Your task to perform on an android device: toggle show notifications on the lock screen Image 0: 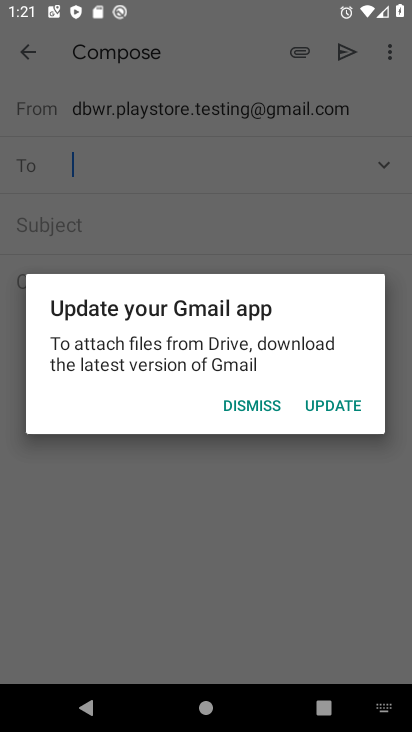
Step 0: press home button
Your task to perform on an android device: toggle show notifications on the lock screen Image 1: 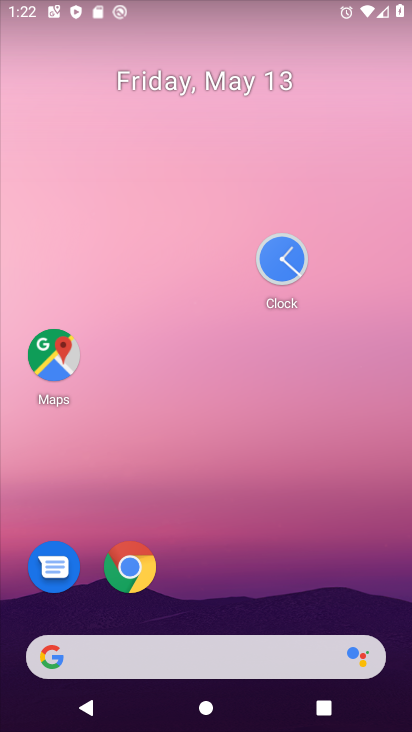
Step 1: drag from (245, 555) to (232, 119)
Your task to perform on an android device: toggle show notifications on the lock screen Image 2: 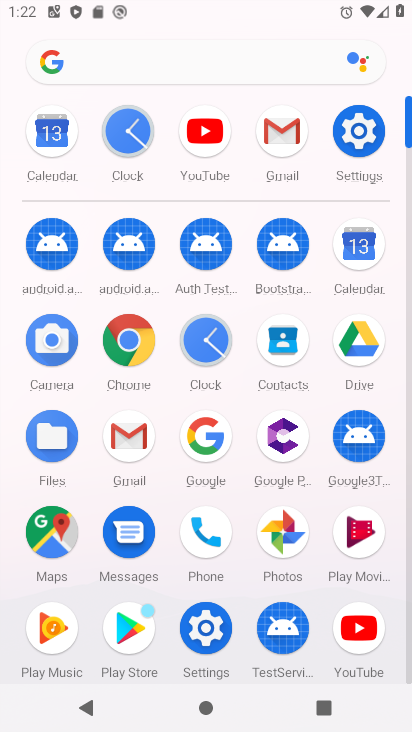
Step 2: click (218, 626)
Your task to perform on an android device: toggle show notifications on the lock screen Image 3: 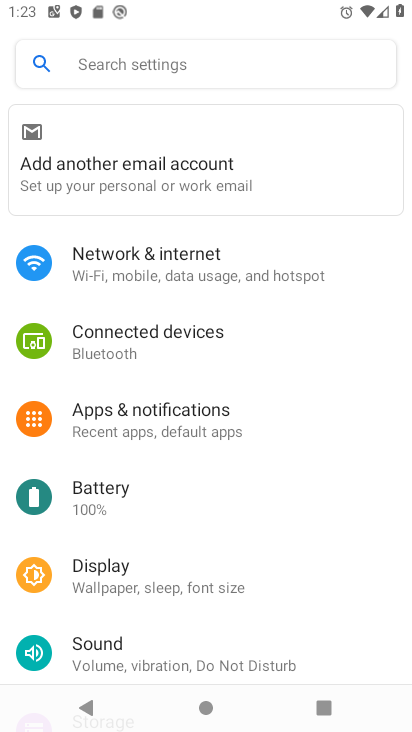
Step 3: drag from (198, 542) to (239, 368)
Your task to perform on an android device: toggle show notifications on the lock screen Image 4: 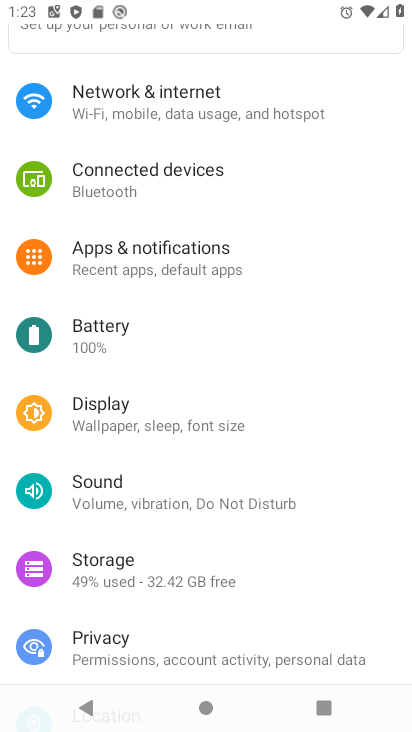
Step 4: drag from (190, 624) to (207, 498)
Your task to perform on an android device: toggle show notifications on the lock screen Image 5: 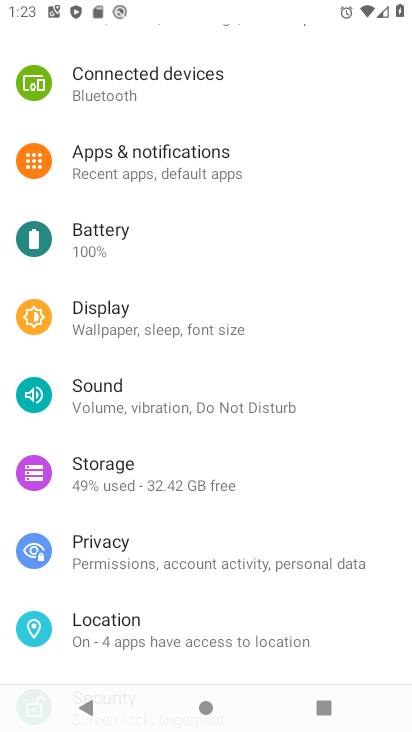
Step 5: click (166, 140)
Your task to perform on an android device: toggle show notifications on the lock screen Image 6: 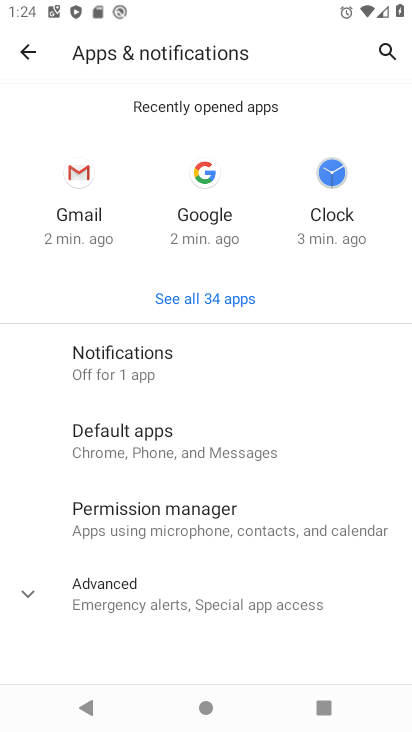
Step 6: click (211, 581)
Your task to perform on an android device: toggle show notifications on the lock screen Image 7: 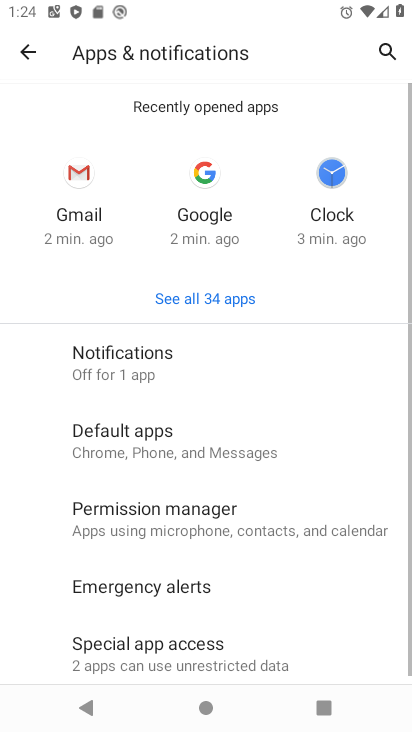
Step 7: click (236, 373)
Your task to perform on an android device: toggle show notifications on the lock screen Image 8: 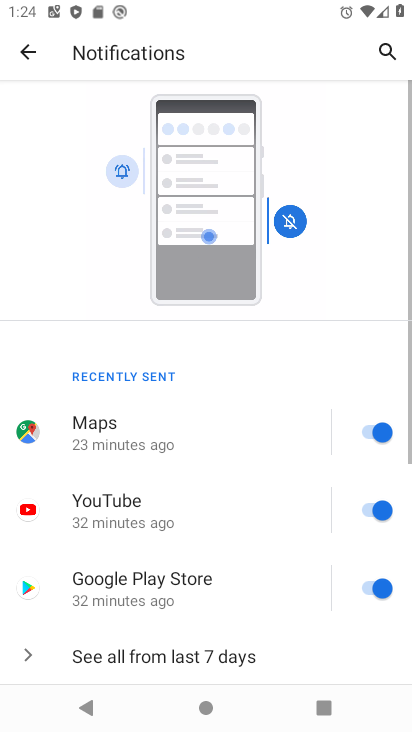
Step 8: drag from (194, 584) to (270, 295)
Your task to perform on an android device: toggle show notifications on the lock screen Image 9: 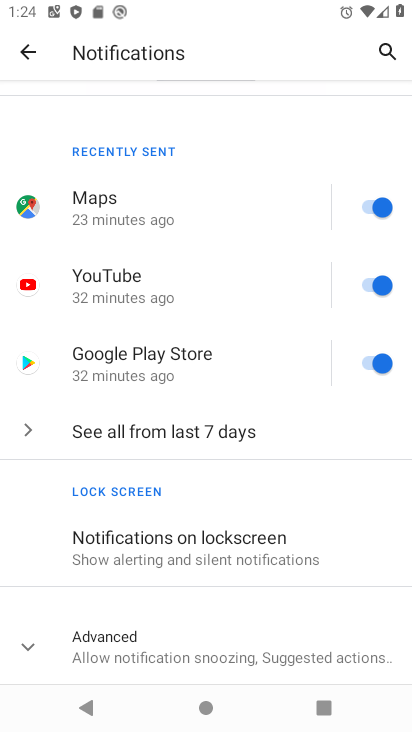
Step 9: click (229, 568)
Your task to perform on an android device: toggle show notifications on the lock screen Image 10: 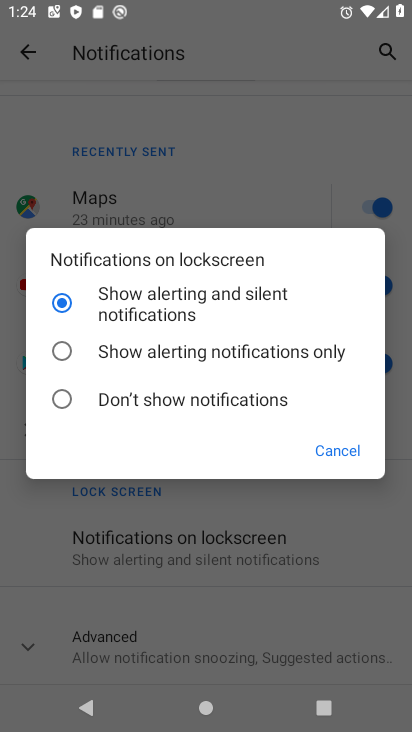
Step 10: click (242, 385)
Your task to perform on an android device: toggle show notifications on the lock screen Image 11: 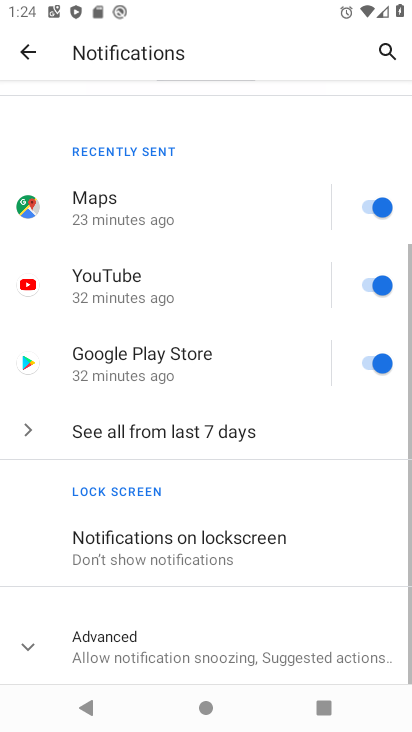
Step 11: click (251, 362)
Your task to perform on an android device: toggle show notifications on the lock screen Image 12: 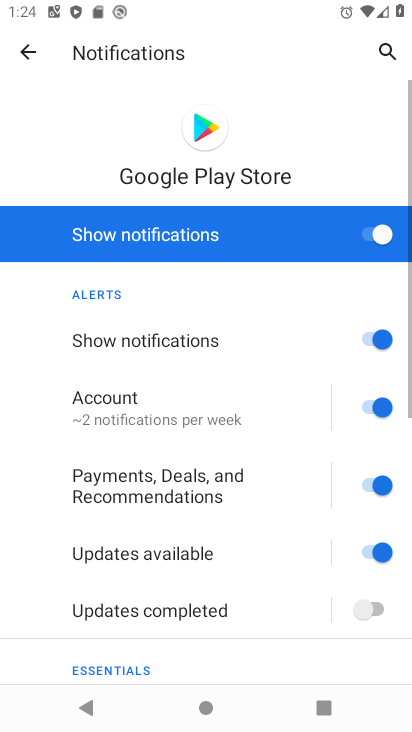
Step 12: task complete